Your task to perform on an android device: open device folders in google photos Image 0: 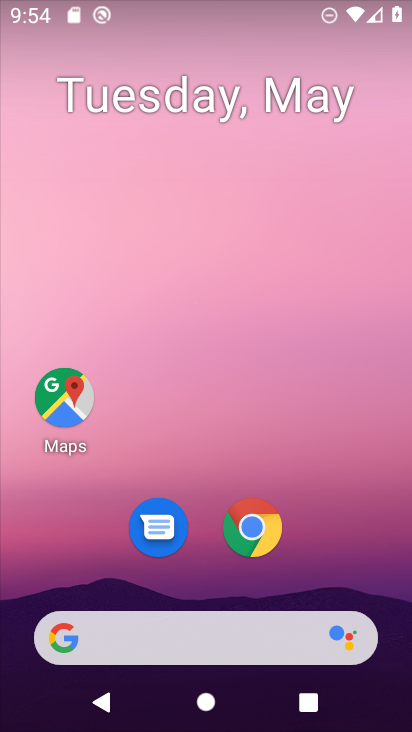
Step 0: drag from (326, 554) to (308, 237)
Your task to perform on an android device: open device folders in google photos Image 1: 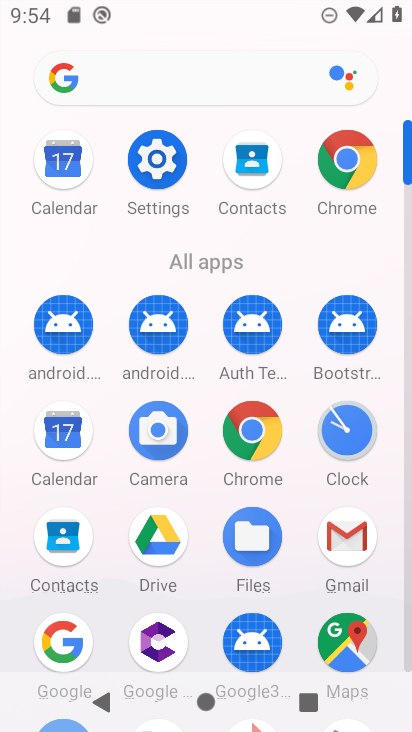
Step 1: drag from (206, 548) to (230, 304)
Your task to perform on an android device: open device folders in google photos Image 2: 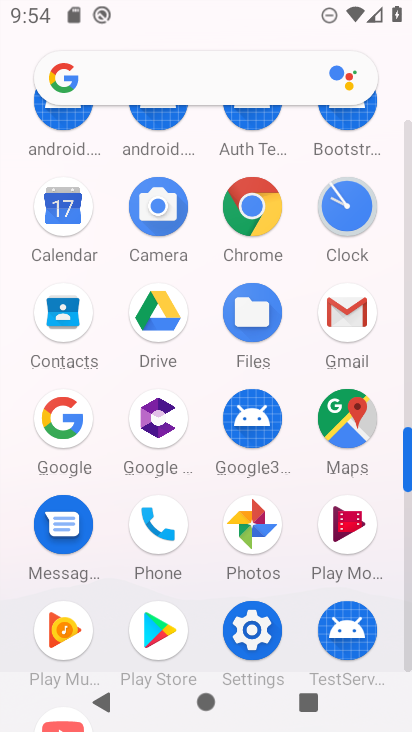
Step 2: click (256, 523)
Your task to perform on an android device: open device folders in google photos Image 3: 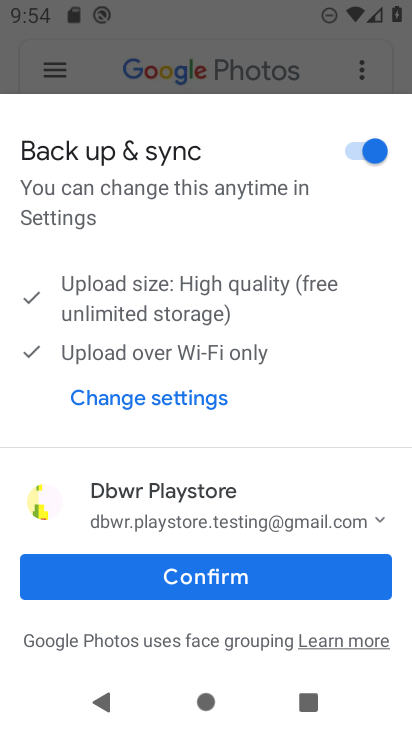
Step 3: click (226, 573)
Your task to perform on an android device: open device folders in google photos Image 4: 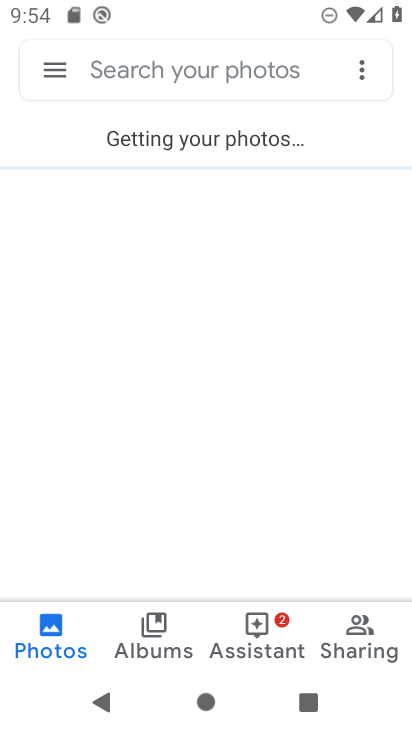
Step 4: click (56, 61)
Your task to perform on an android device: open device folders in google photos Image 5: 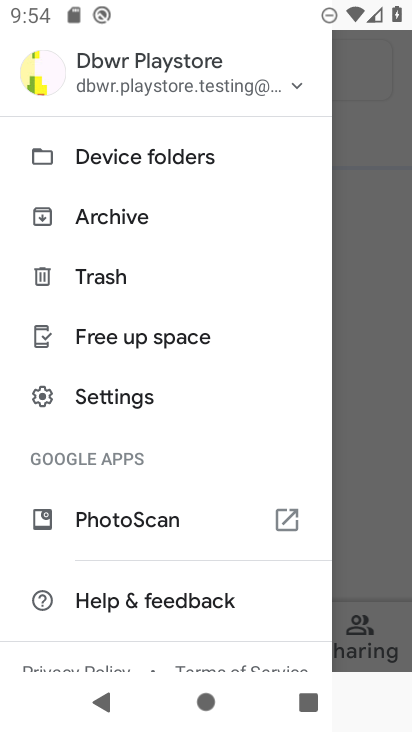
Step 5: click (107, 160)
Your task to perform on an android device: open device folders in google photos Image 6: 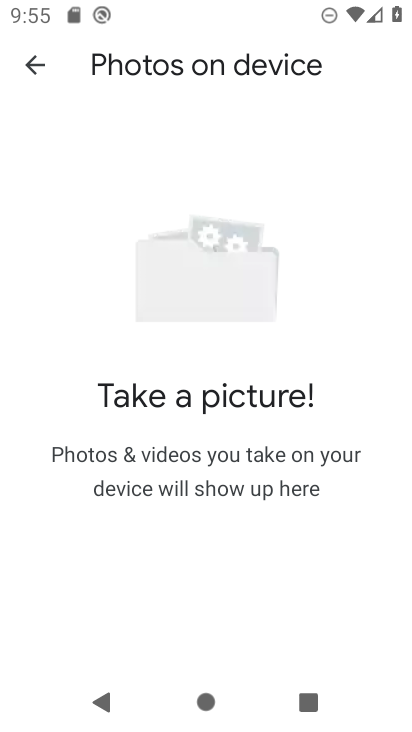
Step 6: task complete